Your task to perform on an android device: What is the recent news? Image 0: 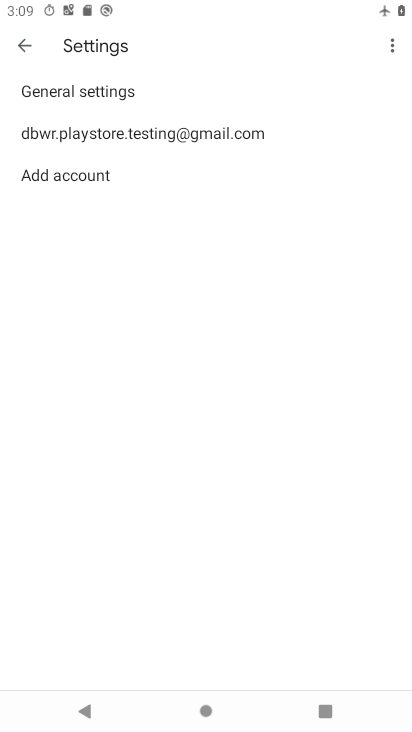
Step 0: press home button
Your task to perform on an android device: What is the recent news? Image 1: 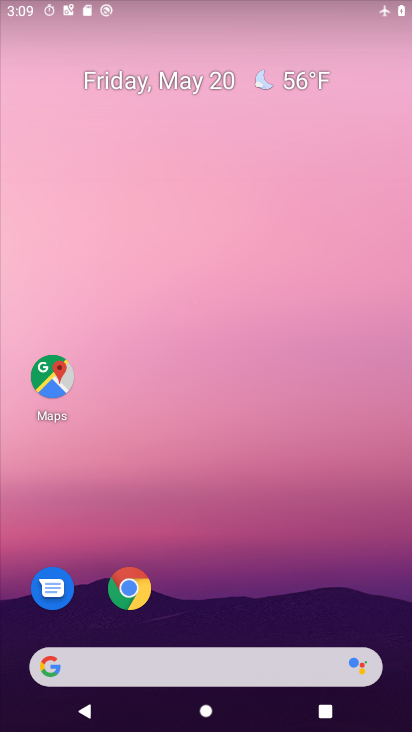
Step 1: drag from (317, 12) to (360, 396)
Your task to perform on an android device: What is the recent news? Image 2: 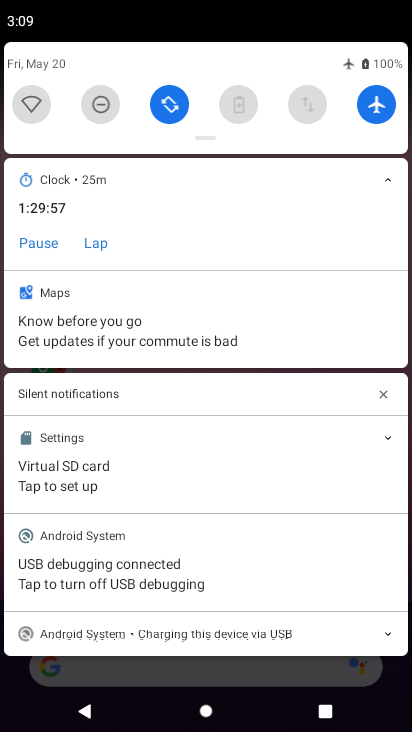
Step 2: click (375, 102)
Your task to perform on an android device: What is the recent news? Image 3: 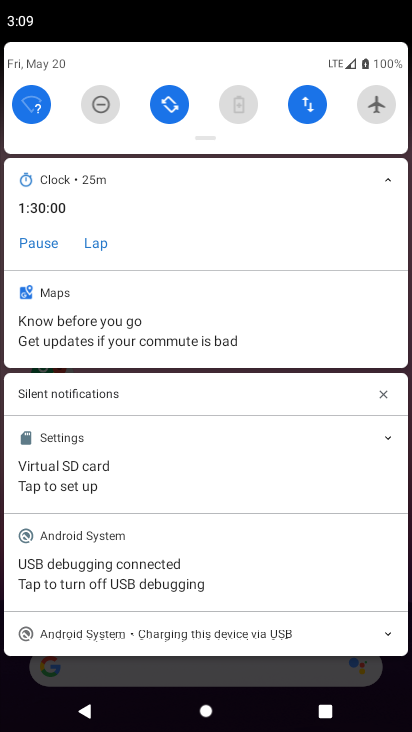
Step 3: task complete